Your task to perform on an android device: open a bookmark in the chrome app Image 0: 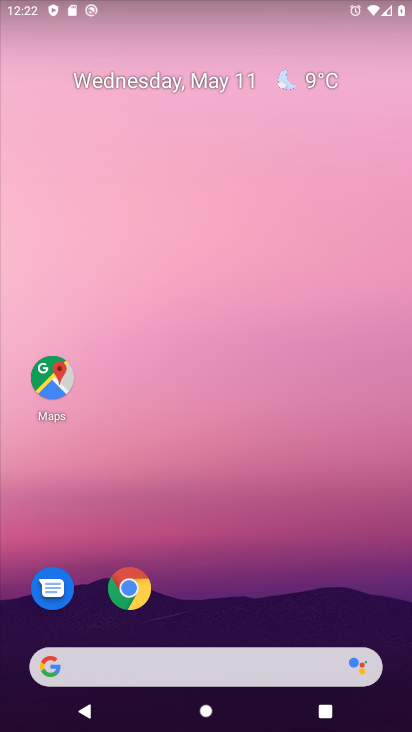
Step 0: click (129, 597)
Your task to perform on an android device: open a bookmark in the chrome app Image 1: 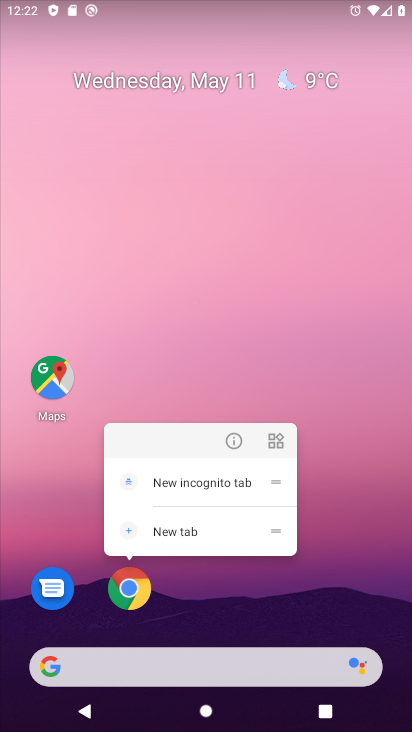
Step 1: click (129, 597)
Your task to perform on an android device: open a bookmark in the chrome app Image 2: 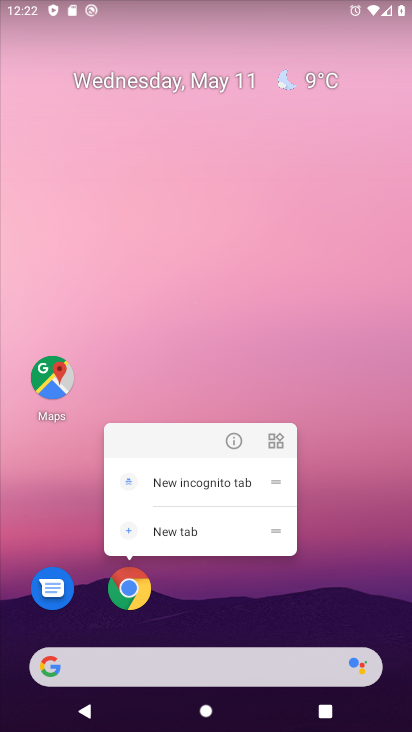
Step 2: click (129, 597)
Your task to perform on an android device: open a bookmark in the chrome app Image 3: 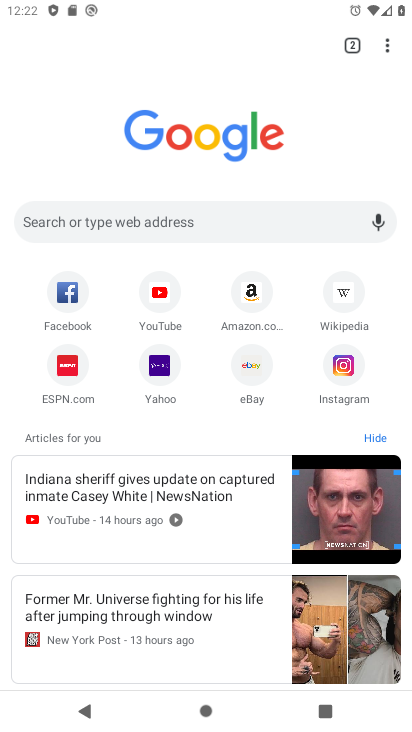
Step 3: drag from (388, 44) to (214, 167)
Your task to perform on an android device: open a bookmark in the chrome app Image 4: 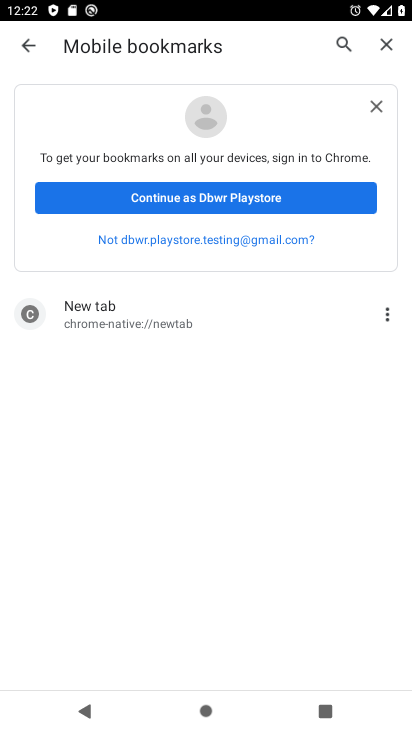
Step 4: click (189, 195)
Your task to perform on an android device: open a bookmark in the chrome app Image 5: 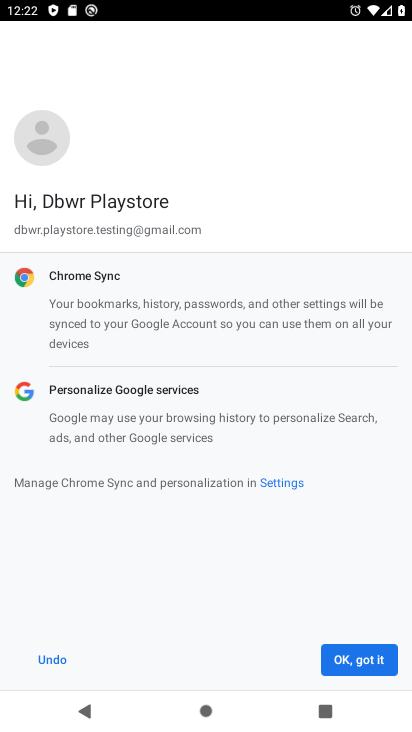
Step 5: click (363, 662)
Your task to perform on an android device: open a bookmark in the chrome app Image 6: 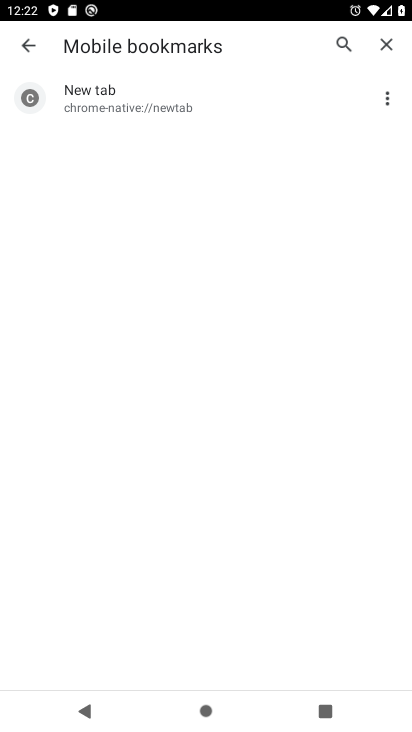
Step 6: click (94, 106)
Your task to perform on an android device: open a bookmark in the chrome app Image 7: 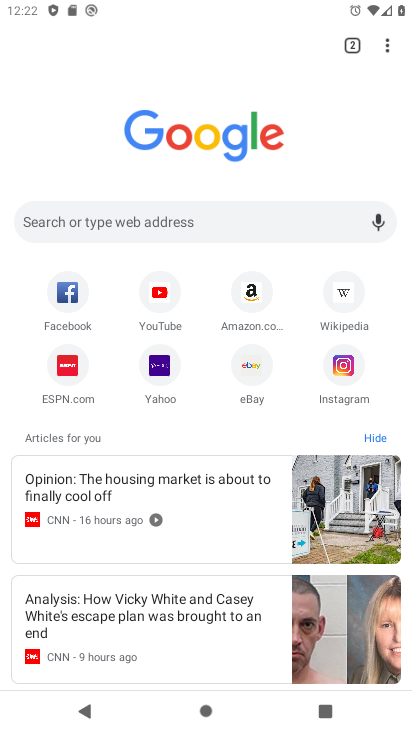
Step 7: task complete